Your task to perform on an android device: open a bookmark in the chrome app Image 0: 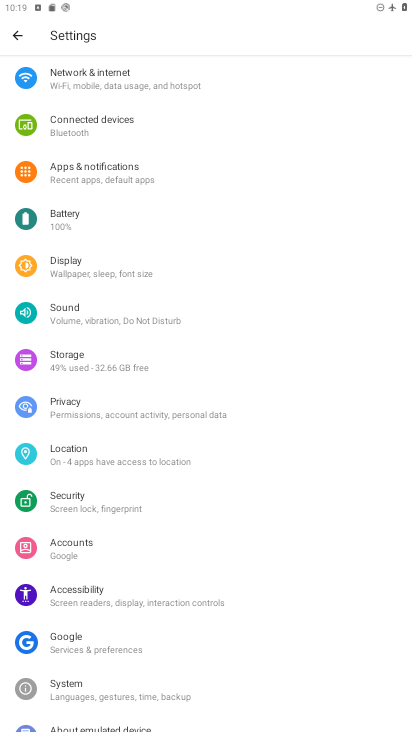
Step 0: press home button
Your task to perform on an android device: open a bookmark in the chrome app Image 1: 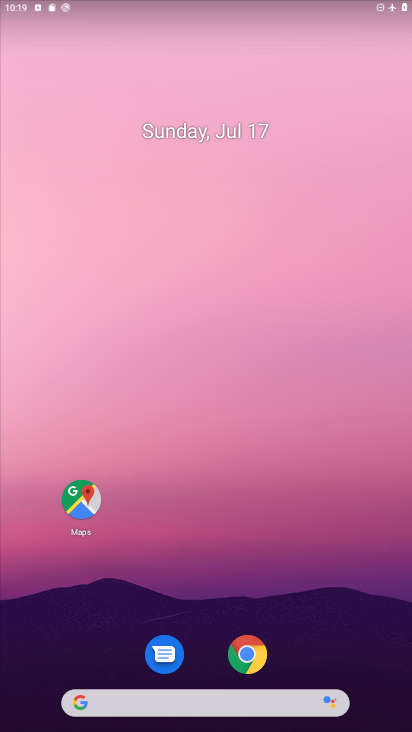
Step 1: click (248, 640)
Your task to perform on an android device: open a bookmark in the chrome app Image 2: 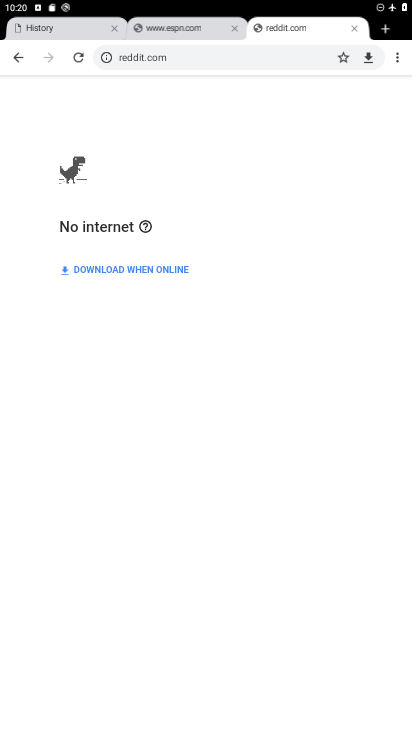
Step 2: click (395, 53)
Your task to perform on an android device: open a bookmark in the chrome app Image 3: 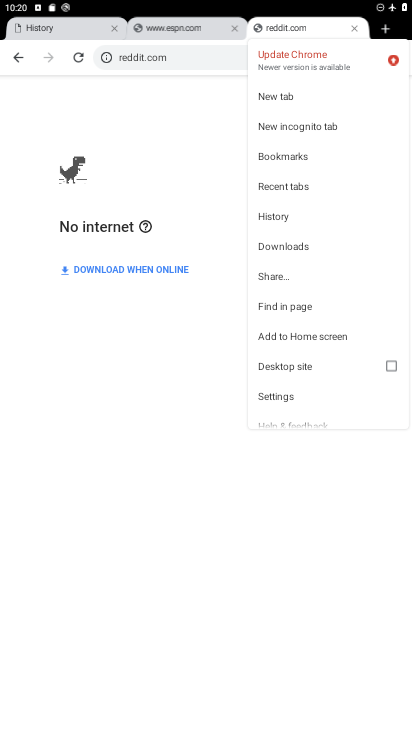
Step 3: click (287, 156)
Your task to perform on an android device: open a bookmark in the chrome app Image 4: 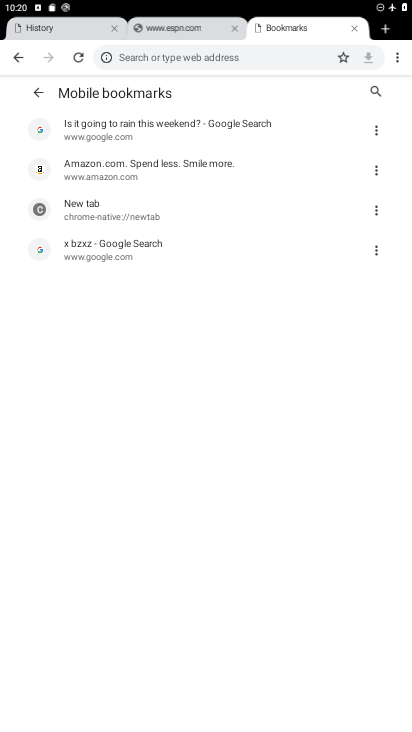
Step 4: click (98, 181)
Your task to perform on an android device: open a bookmark in the chrome app Image 5: 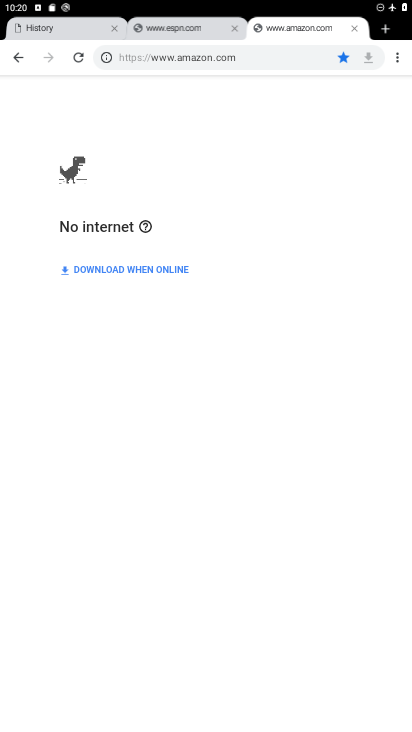
Step 5: task complete